Your task to perform on an android device: Open Google Image 0: 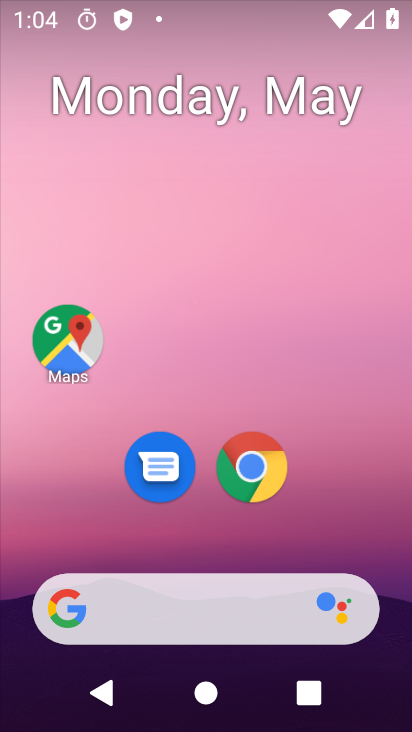
Step 0: drag from (391, 700) to (373, 60)
Your task to perform on an android device: Open Google Image 1: 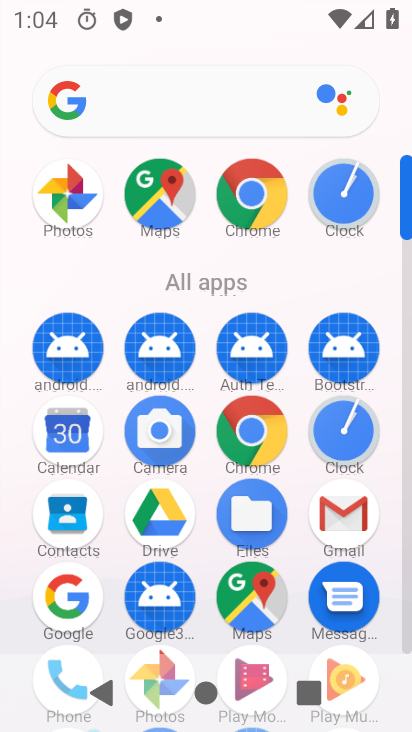
Step 1: click (68, 603)
Your task to perform on an android device: Open Google Image 2: 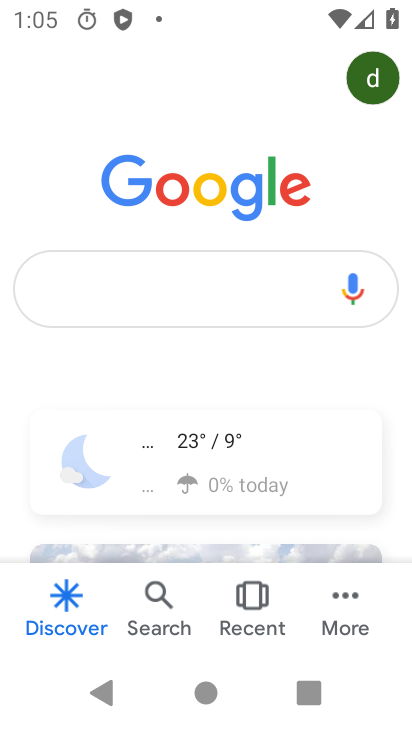
Step 2: task complete